Your task to perform on an android device: Show the shopping cart on amazon. Search for asus rog on amazon, select the first entry, and add it to the cart. Image 0: 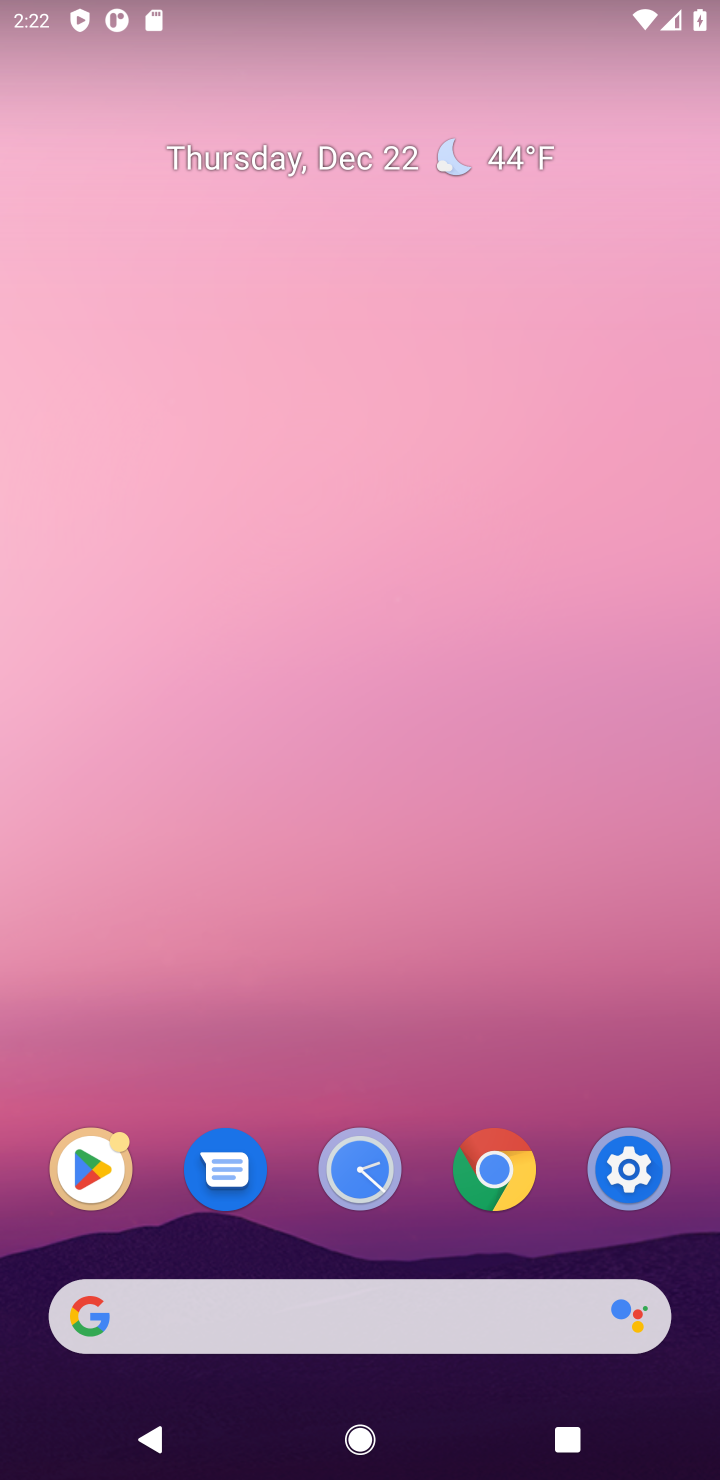
Step 0: click (497, 1177)
Your task to perform on an android device: Show the shopping cart on amazon. Search for asus rog on amazon, select the first entry, and add it to the cart. Image 1: 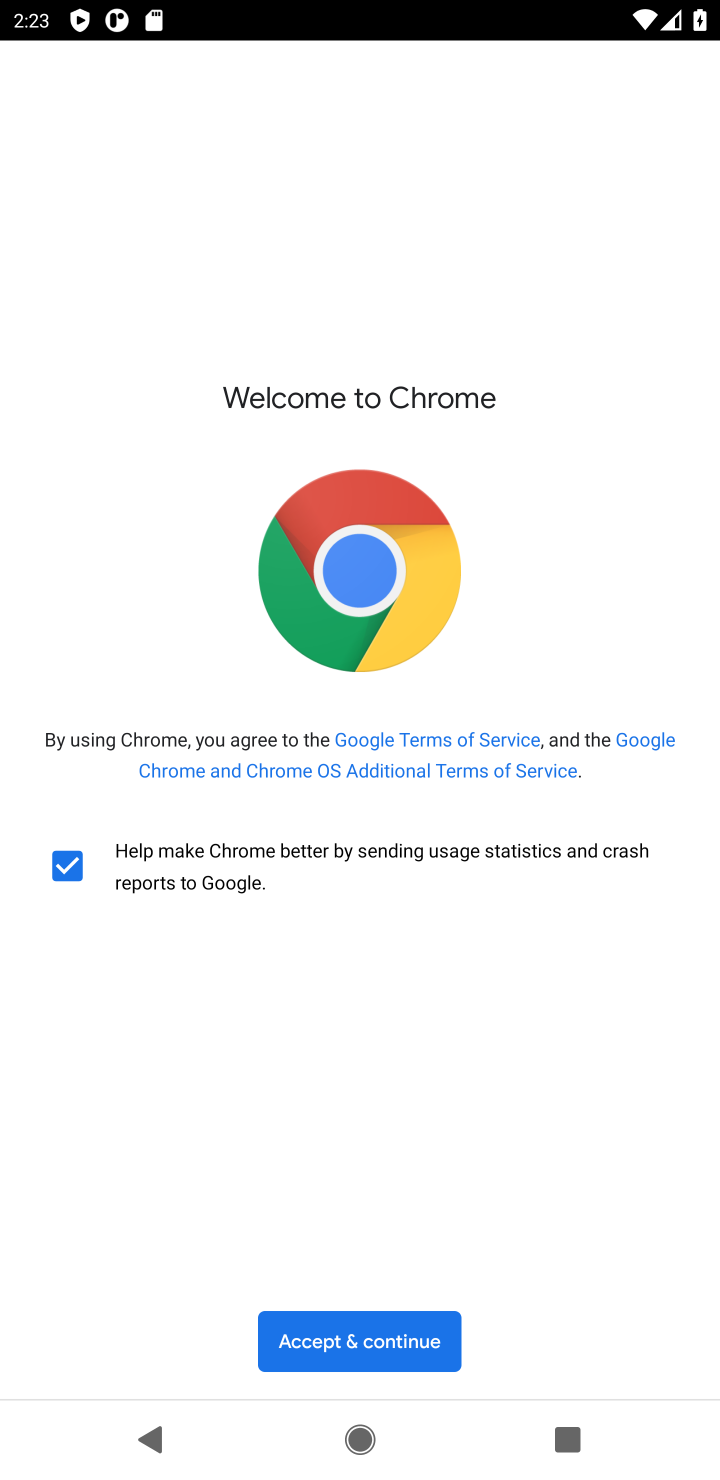
Step 1: click (363, 1341)
Your task to perform on an android device: Show the shopping cart on amazon. Search for asus rog on amazon, select the first entry, and add it to the cart. Image 2: 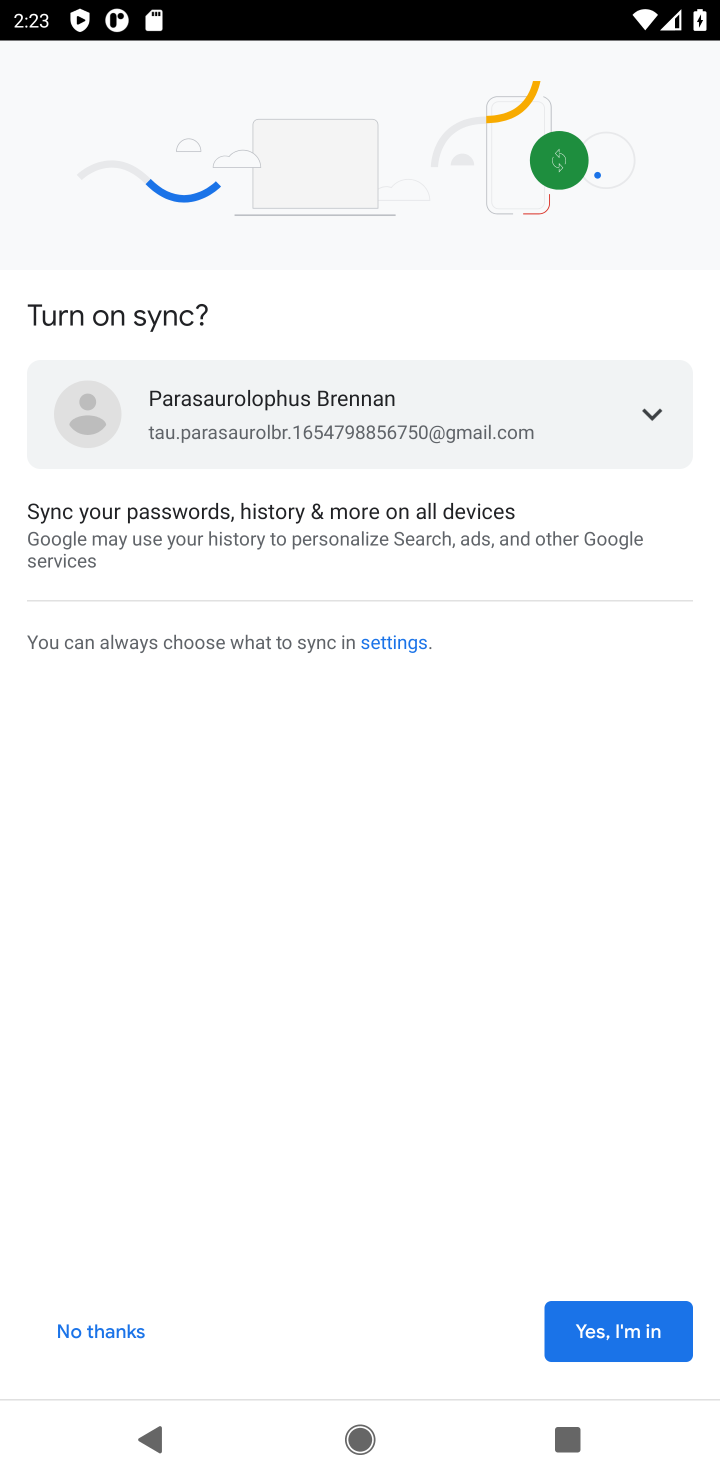
Step 2: click (117, 1340)
Your task to perform on an android device: Show the shopping cart on amazon. Search for asus rog on amazon, select the first entry, and add it to the cart. Image 3: 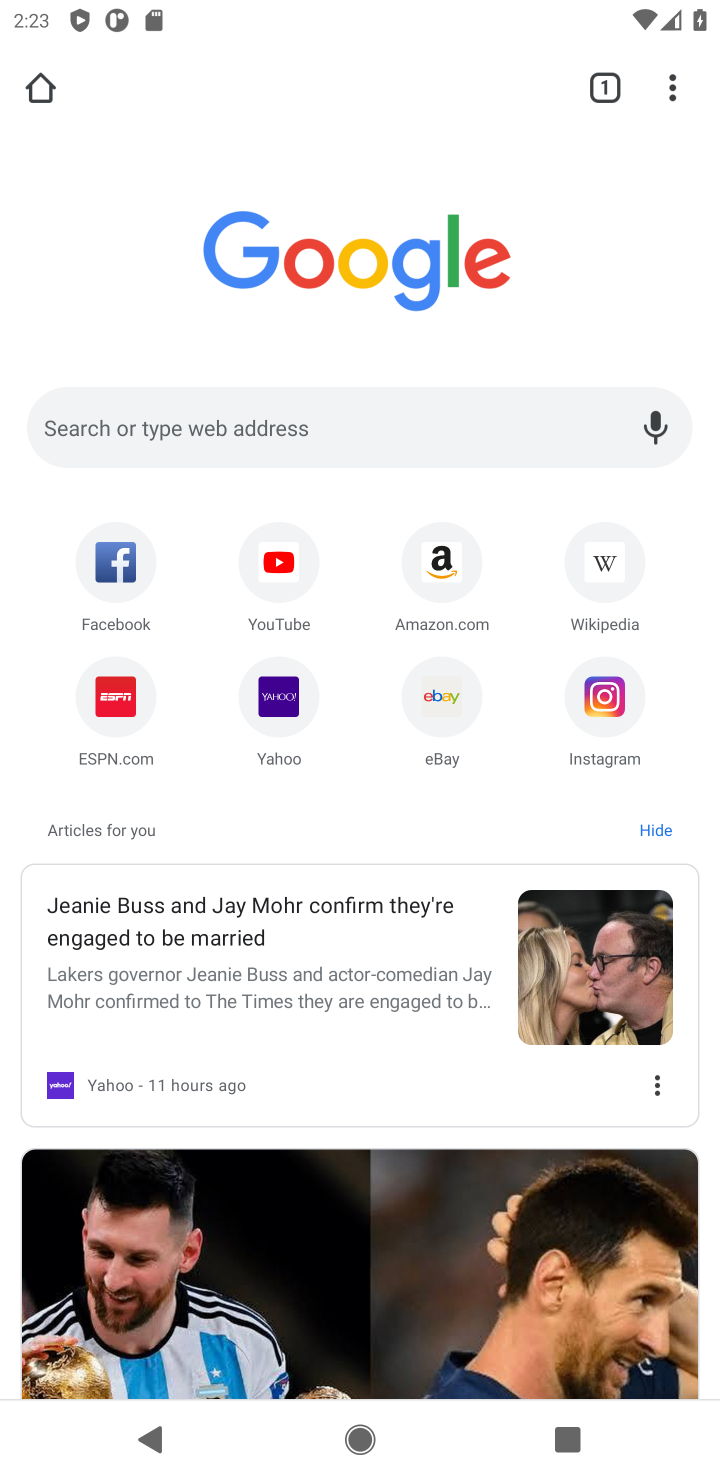
Step 3: click (445, 563)
Your task to perform on an android device: Show the shopping cart on amazon. Search for asus rog on amazon, select the first entry, and add it to the cart. Image 4: 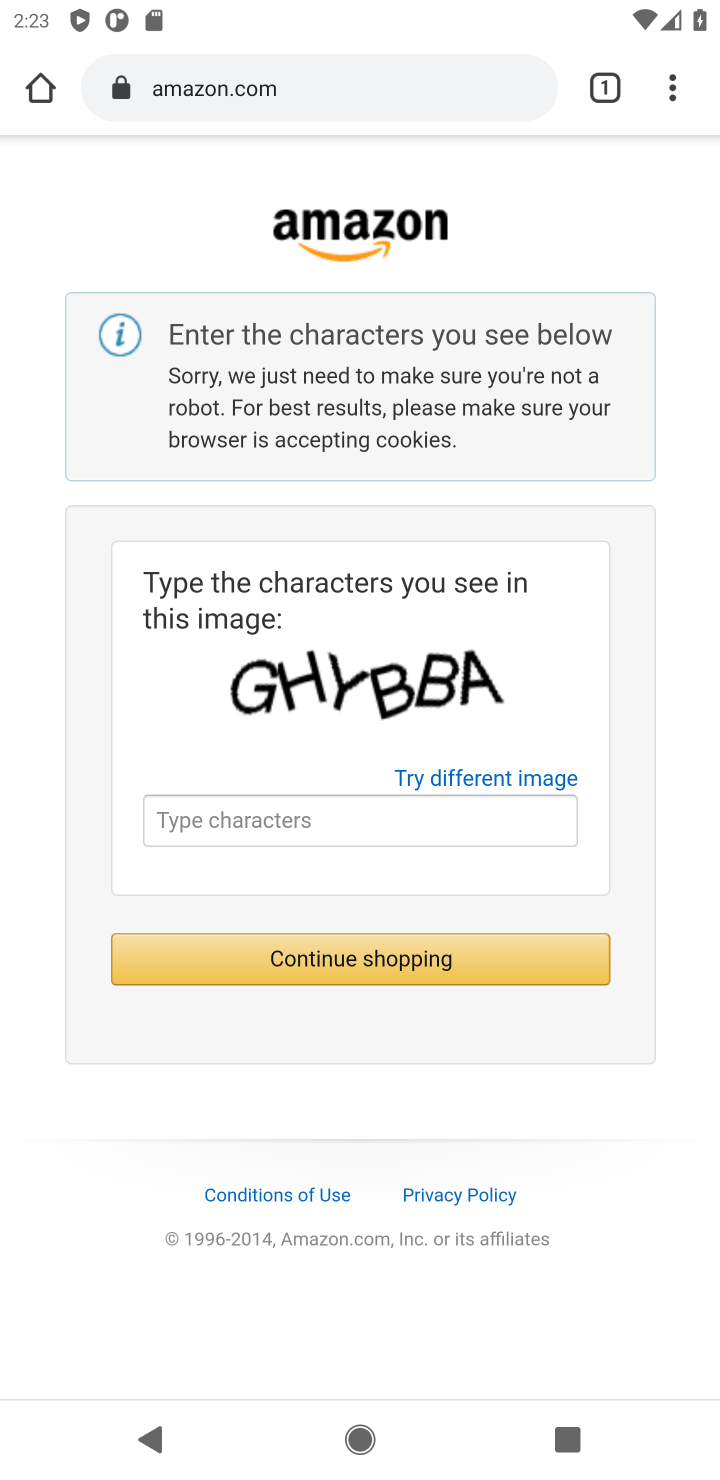
Step 4: click (276, 821)
Your task to perform on an android device: Show the shopping cart on amazon. Search for asus rog on amazon, select the first entry, and add it to the cart. Image 5: 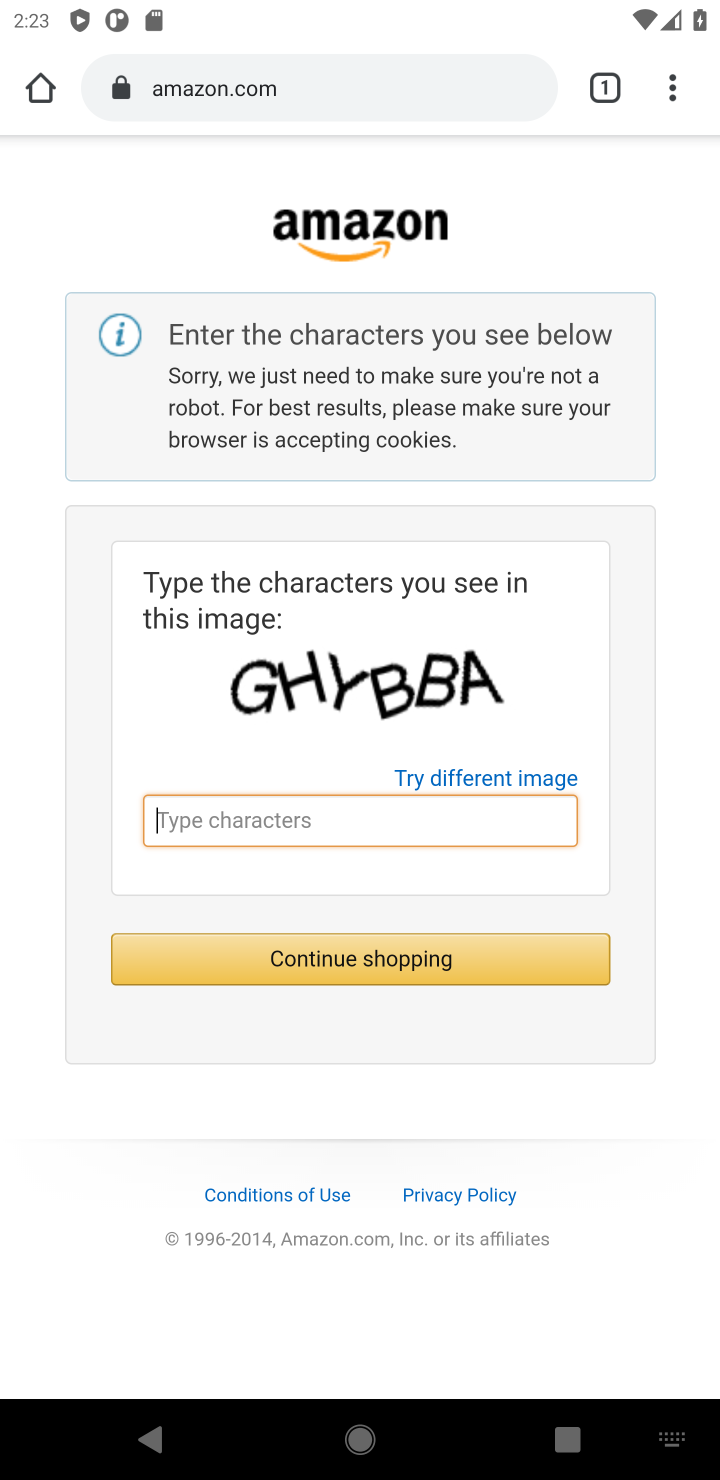
Step 5: type "GHYBBA"
Your task to perform on an android device: Show the shopping cart on amazon. Search for asus rog on amazon, select the first entry, and add it to the cart. Image 6: 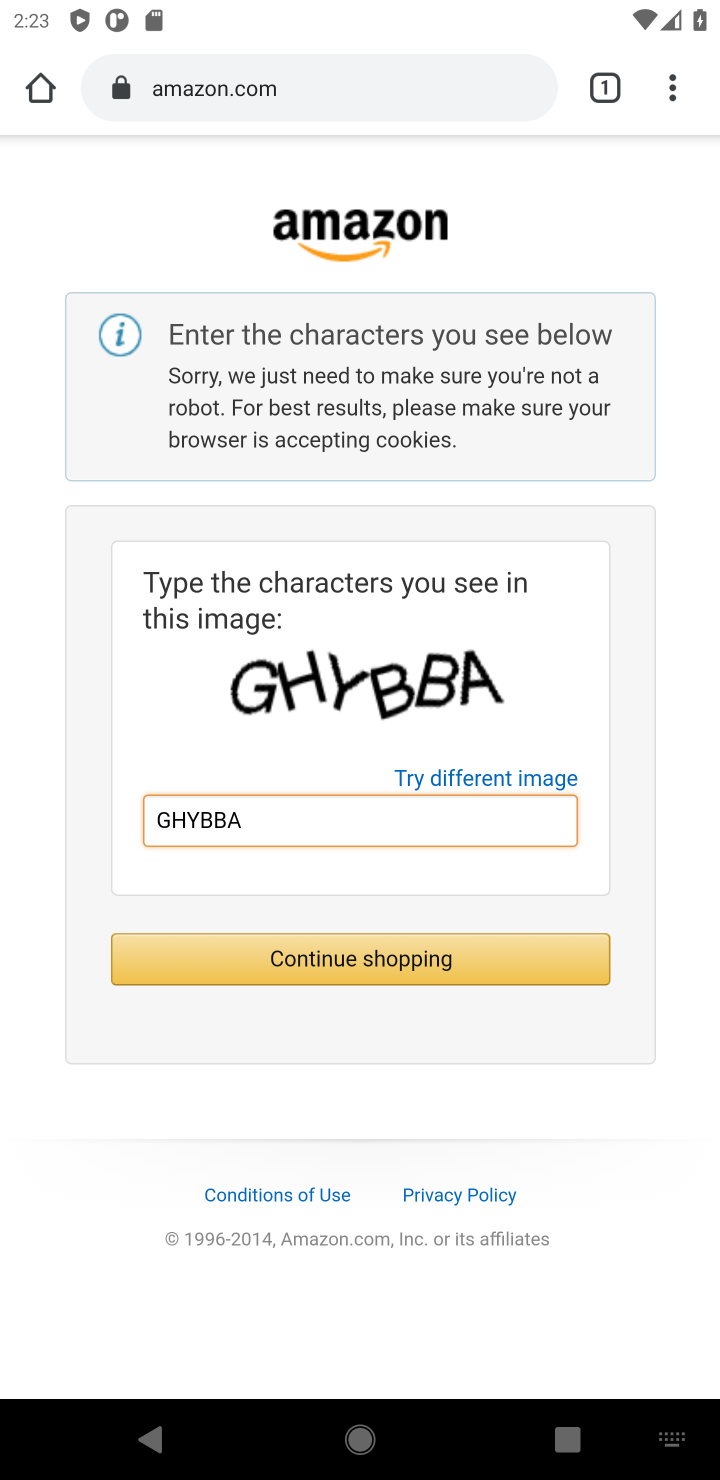
Step 6: click (468, 939)
Your task to perform on an android device: Show the shopping cart on amazon. Search for asus rog on amazon, select the first entry, and add it to the cart. Image 7: 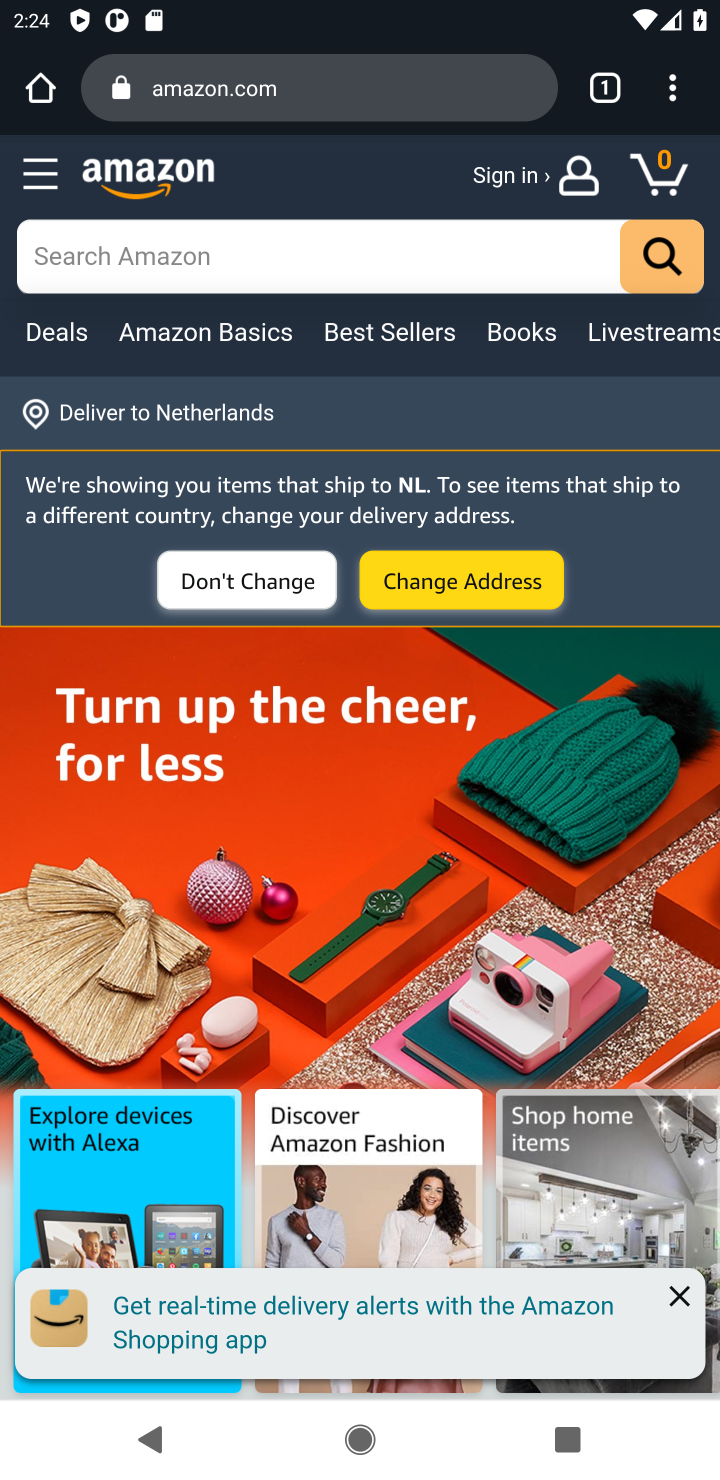
Step 7: click (658, 190)
Your task to perform on an android device: Show the shopping cart on amazon. Search for asus rog on amazon, select the first entry, and add it to the cart. Image 8: 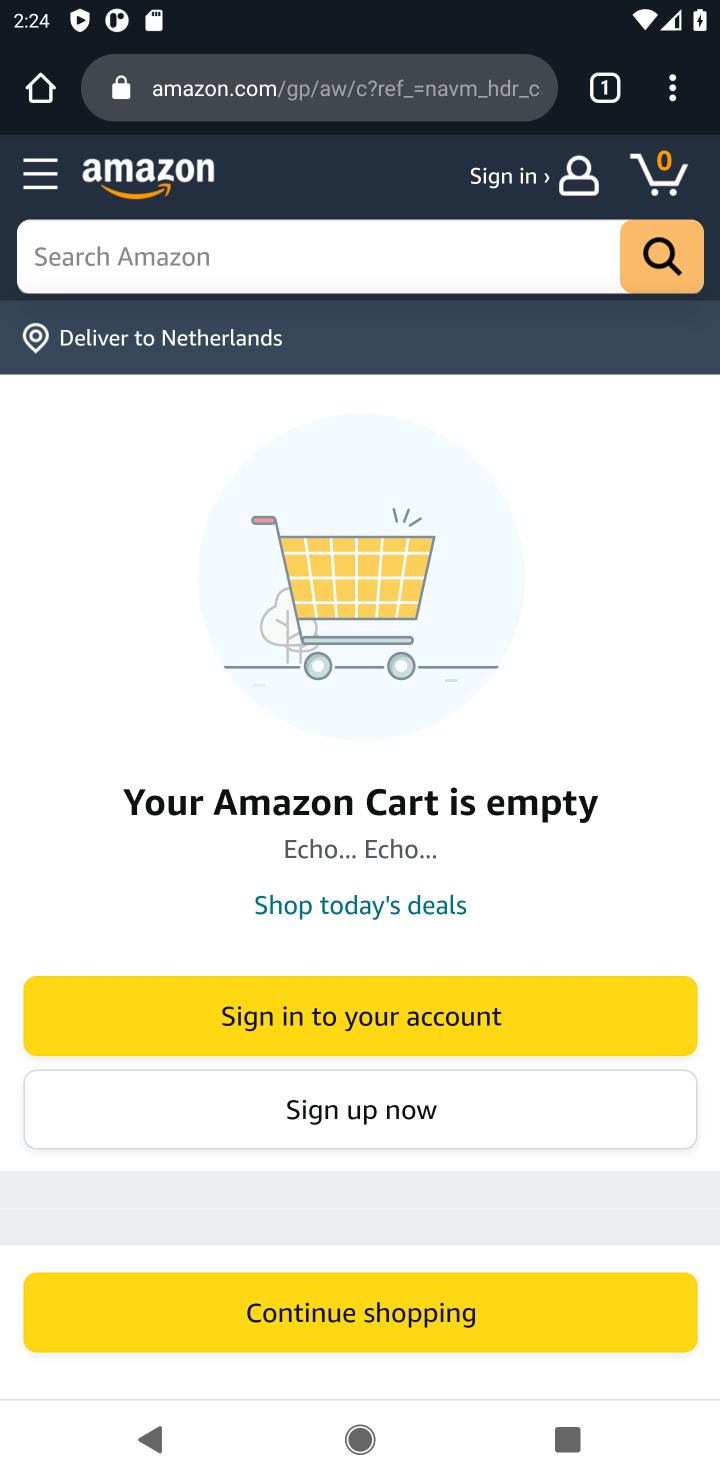
Step 8: click (139, 253)
Your task to perform on an android device: Show the shopping cart on amazon. Search for asus rog on amazon, select the first entry, and add it to the cart. Image 9: 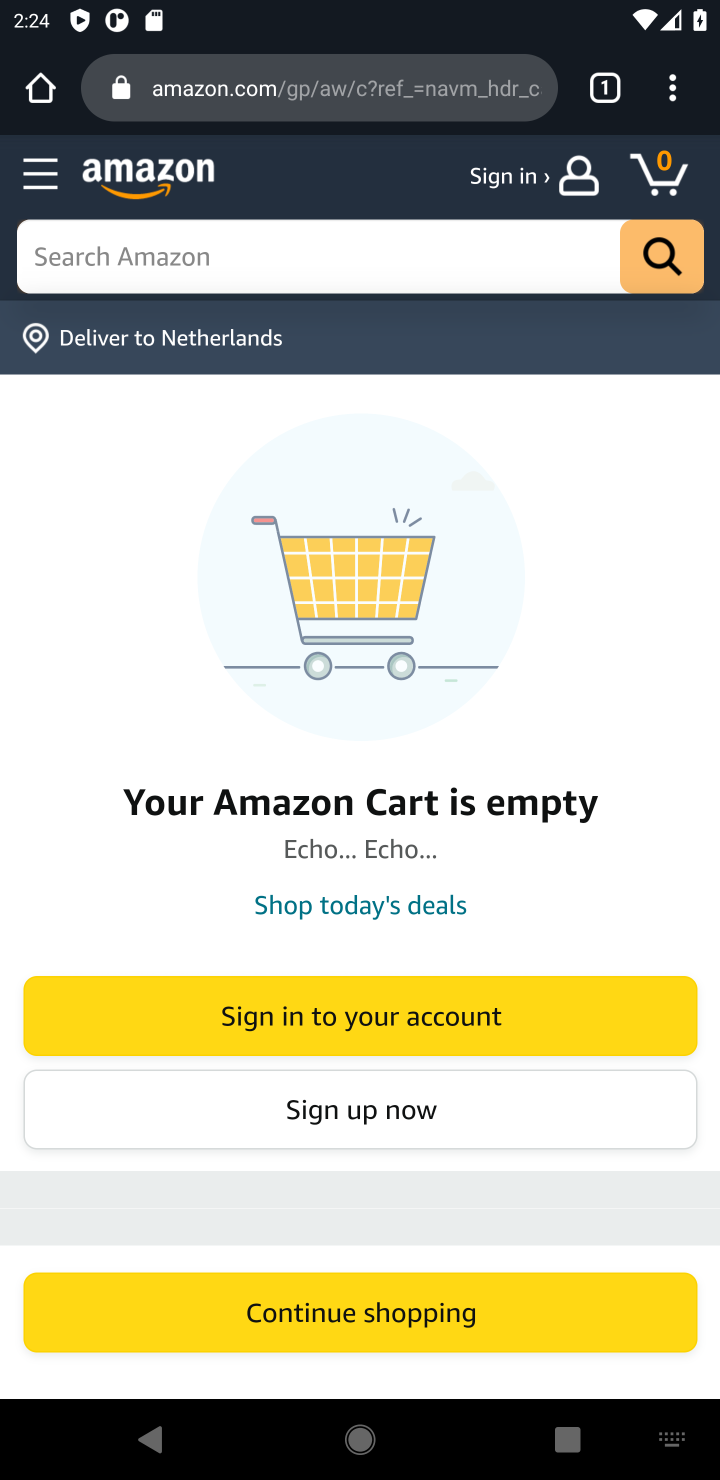
Step 9: type "asus rog"
Your task to perform on an android device: Show the shopping cart on amazon. Search for asus rog on amazon, select the first entry, and add it to the cart. Image 10: 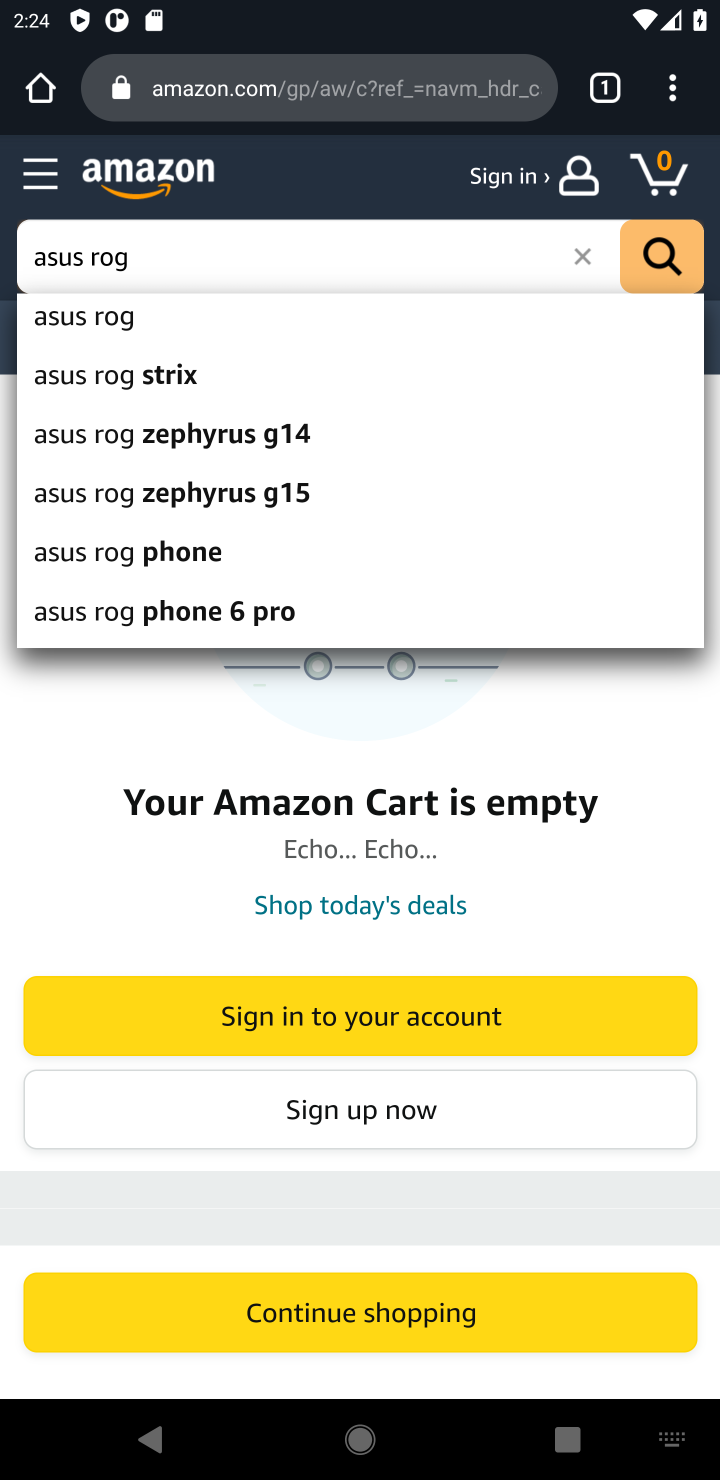
Step 10: click (63, 334)
Your task to perform on an android device: Show the shopping cart on amazon. Search for asus rog on amazon, select the first entry, and add it to the cart. Image 11: 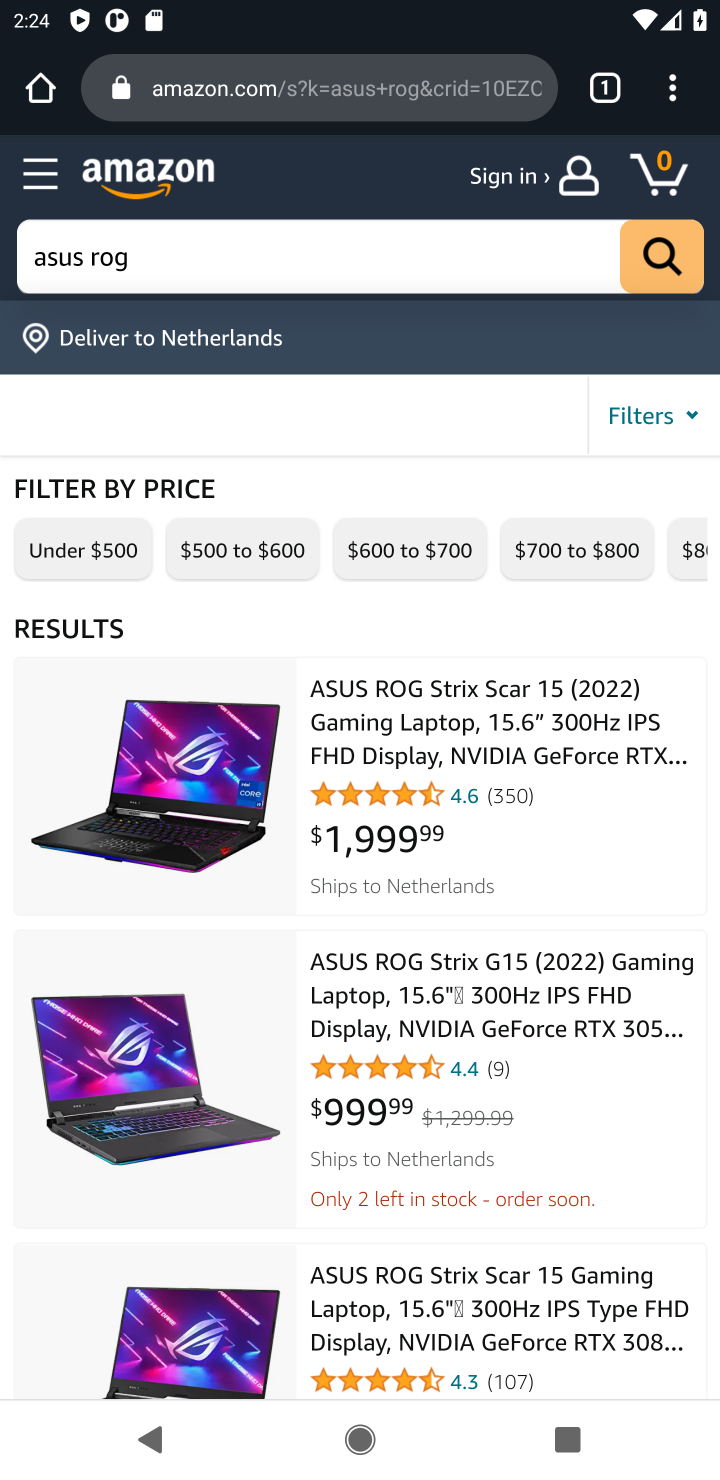
Step 11: click (375, 745)
Your task to perform on an android device: Show the shopping cart on amazon. Search for asus rog on amazon, select the first entry, and add it to the cart. Image 12: 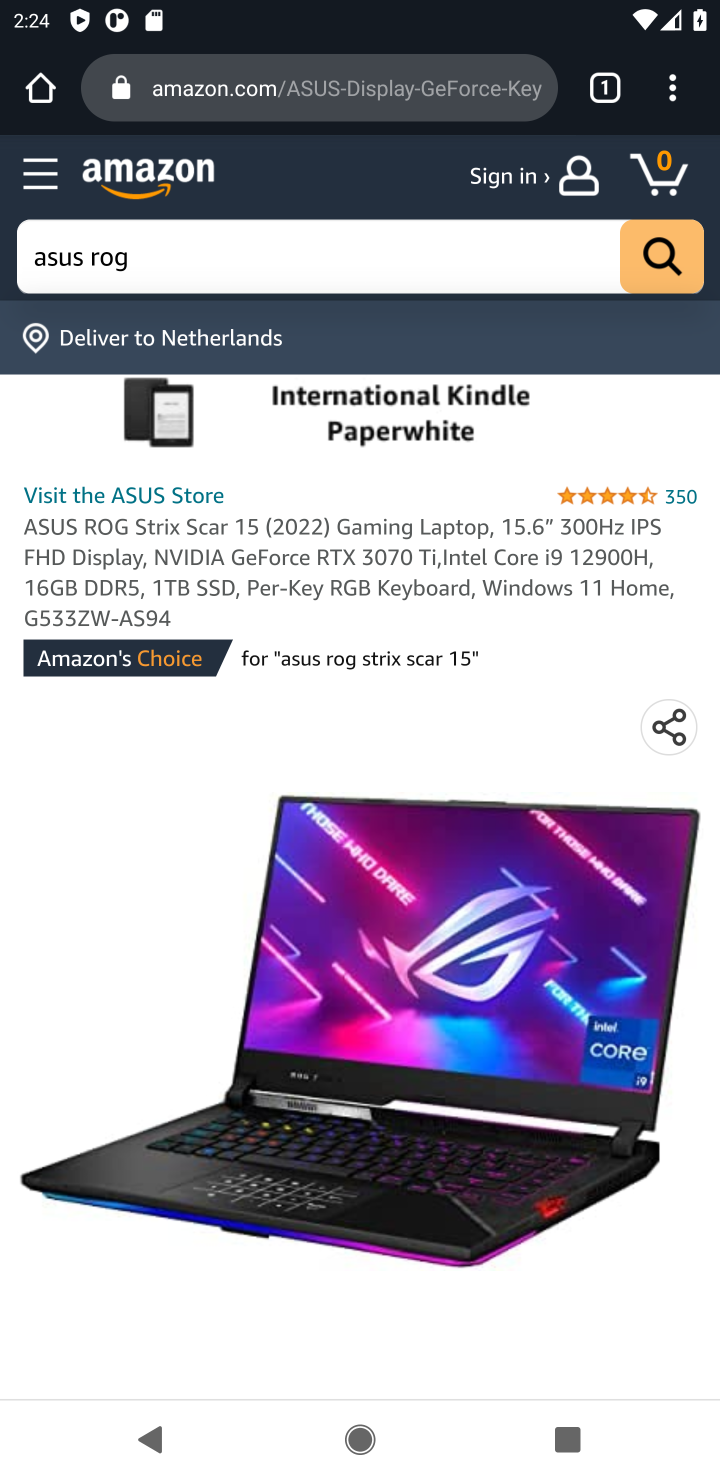
Step 12: drag from (357, 963) to (370, 438)
Your task to perform on an android device: Show the shopping cart on amazon. Search for asus rog on amazon, select the first entry, and add it to the cart. Image 13: 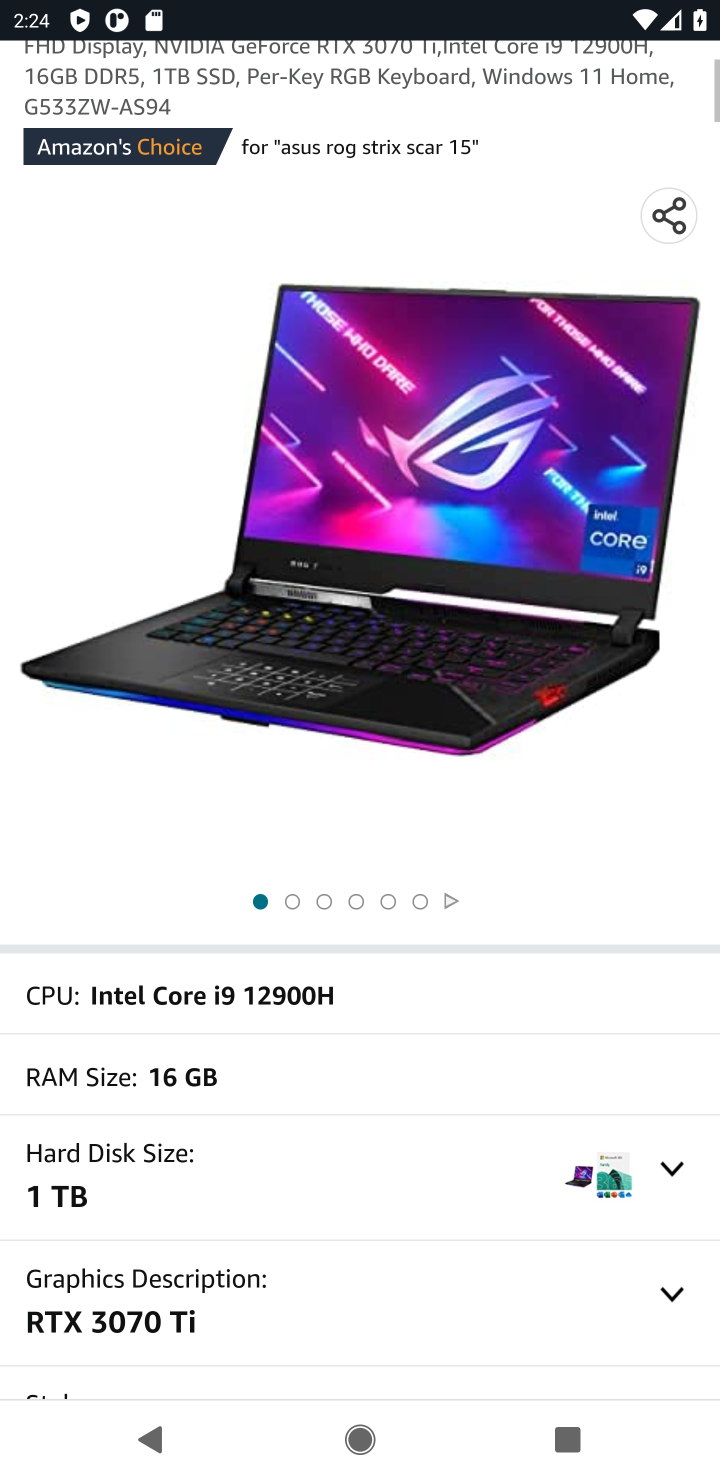
Step 13: drag from (342, 1152) to (327, 484)
Your task to perform on an android device: Show the shopping cart on amazon. Search for asus rog on amazon, select the first entry, and add it to the cart. Image 14: 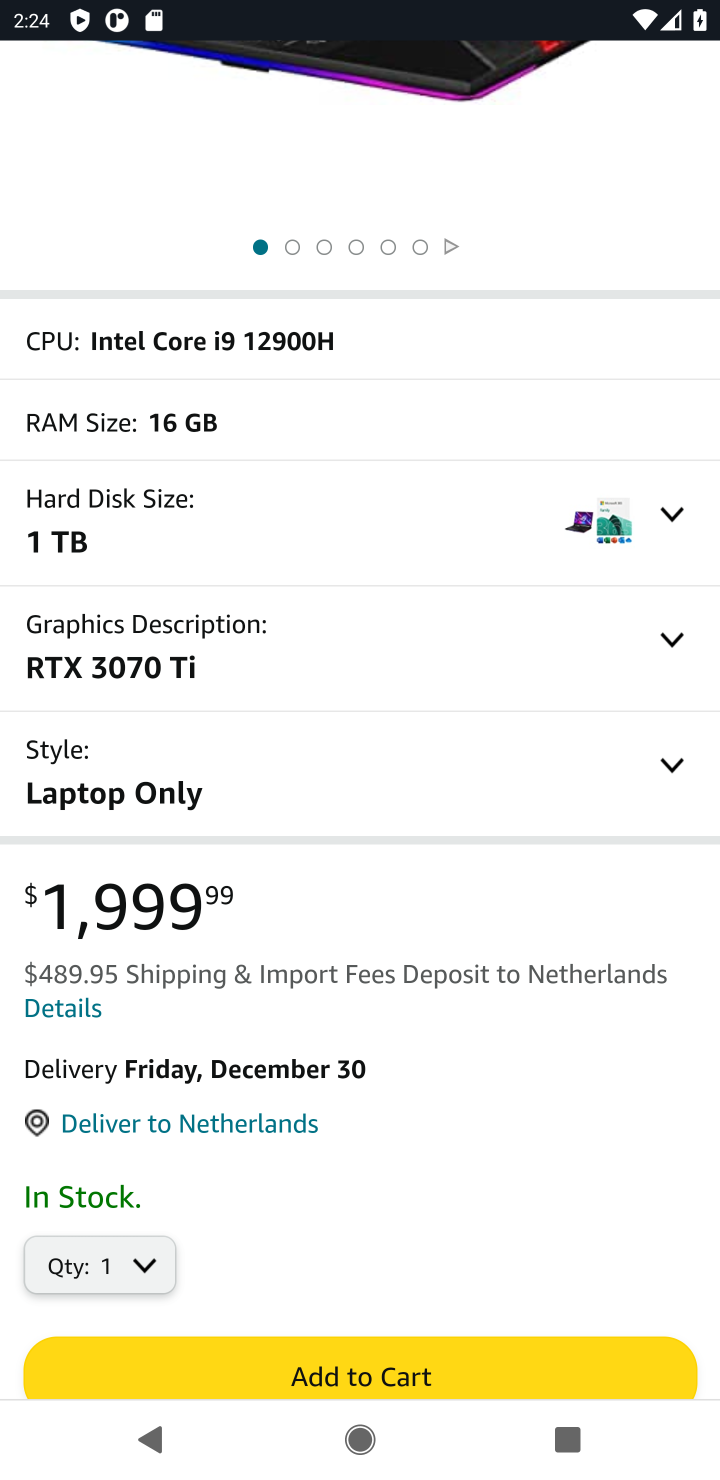
Step 14: drag from (346, 1156) to (370, 745)
Your task to perform on an android device: Show the shopping cart on amazon. Search for asus rog on amazon, select the first entry, and add it to the cart. Image 15: 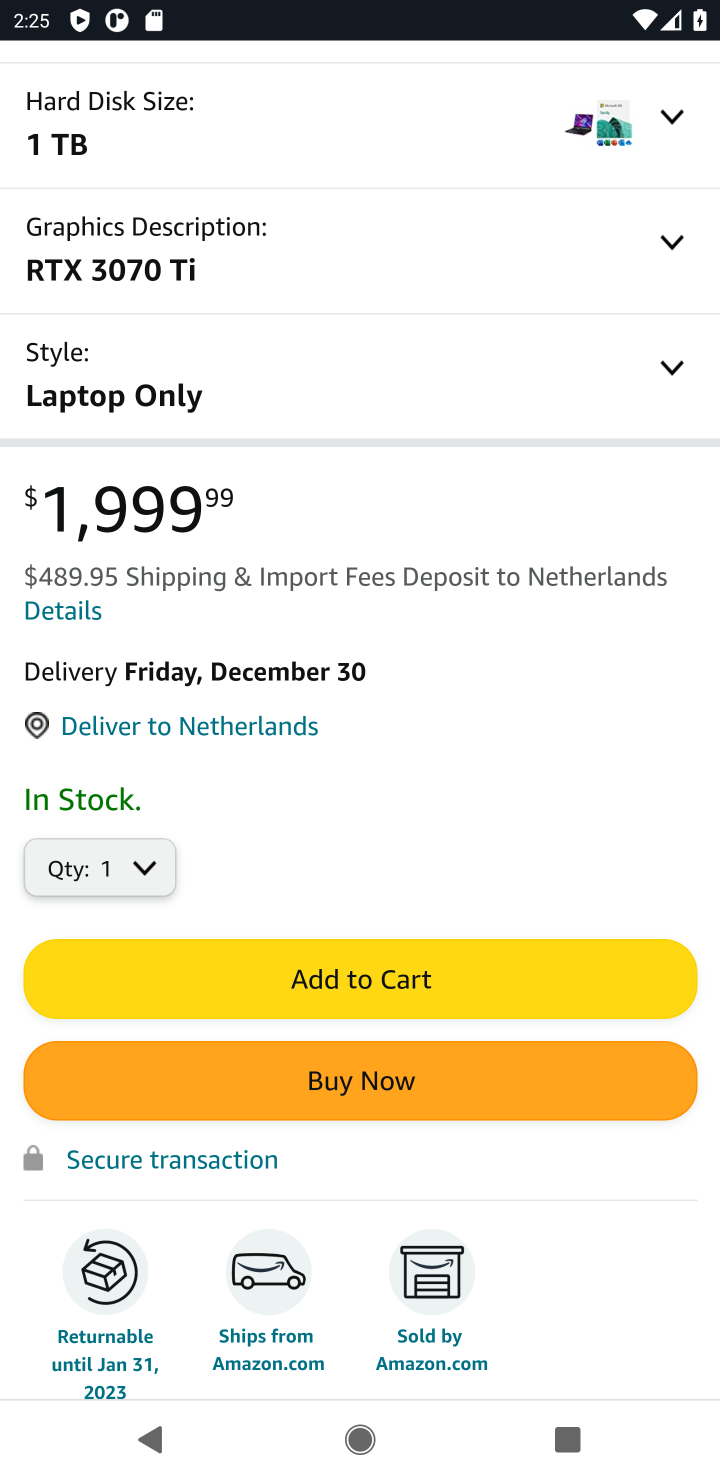
Step 15: click (334, 996)
Your task to perform on an android device: Show the shopping cart on amazon. Search for asus rog on amazon, select the first entry, and add it to the cart. Image 16: 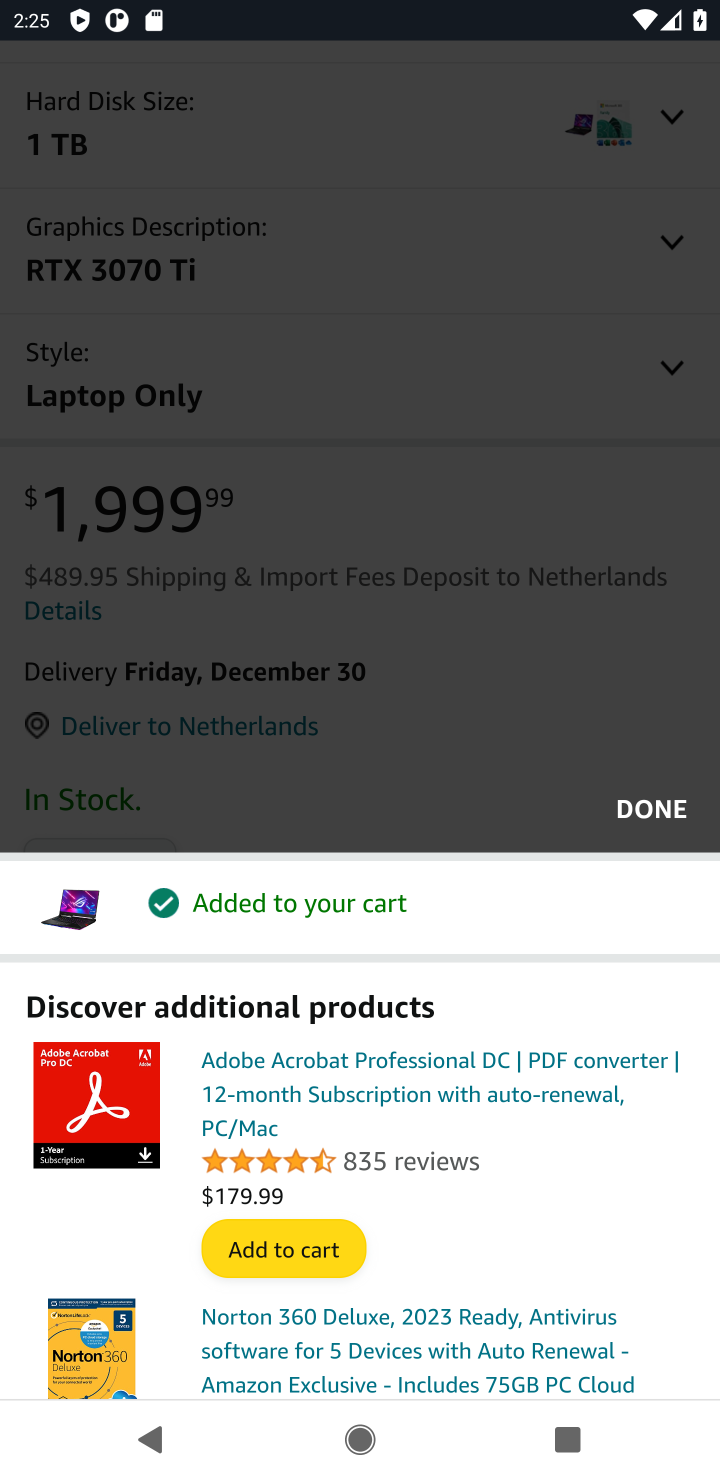
Step 16: click (661, 811)
Your task to perform on an android device: Show the shopping cart on amazon. Search for asus rog on amazon, select the first entry, and add it to the cart. Image 17: 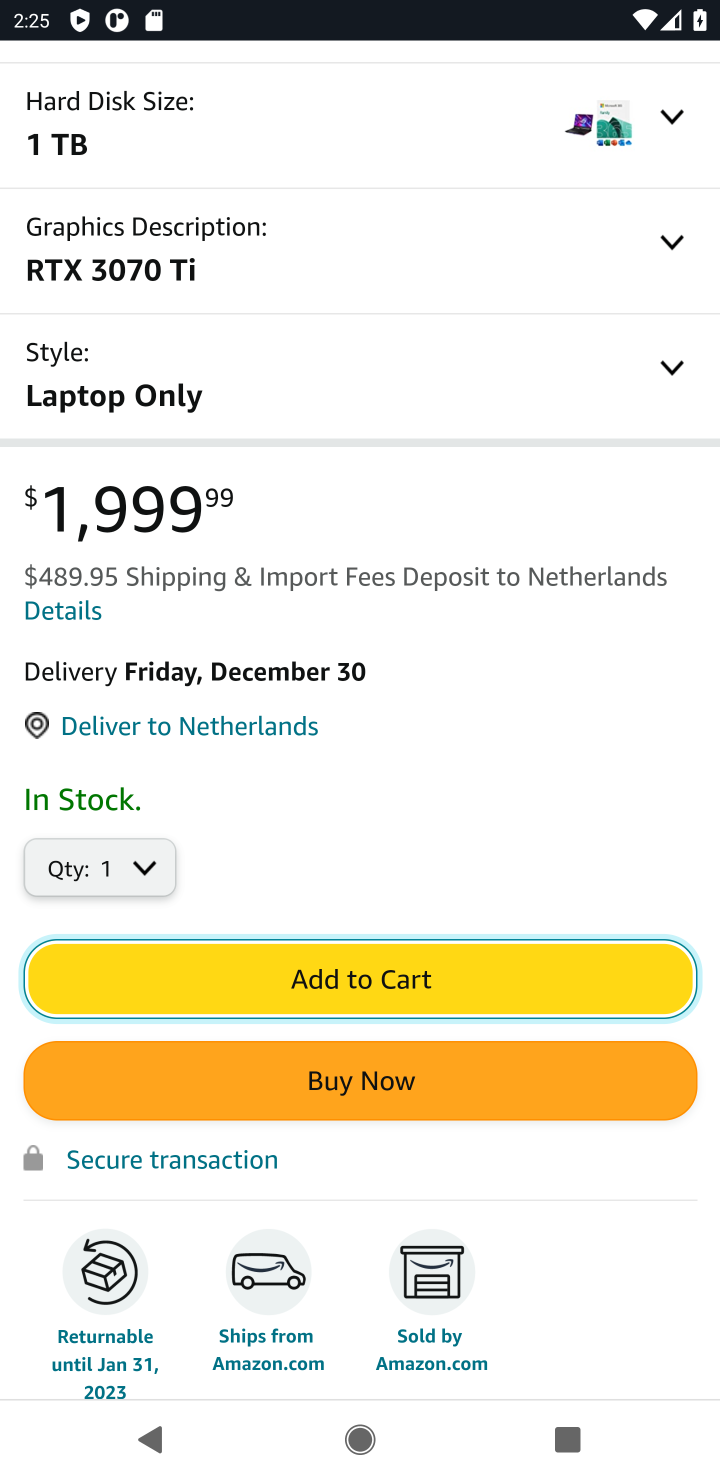
Step 17: click (314, 962)
Your task to perform on an android device: Show the shopping cart on amazon. Search for asus rog on amazon, select the first entry, and add it to the cart. Image 18: 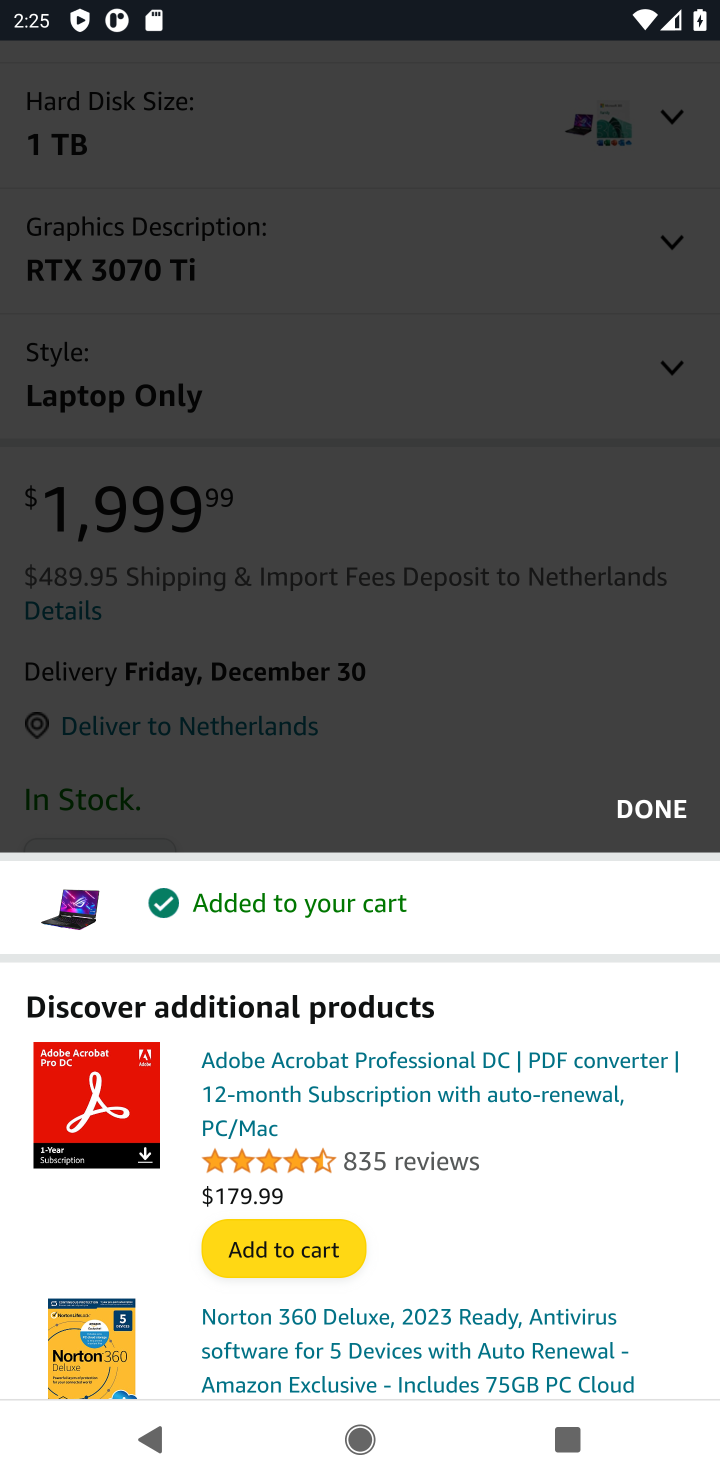
Step 18: task complete